Your task to perform on an android device: Open Yahoo.com Image 0: 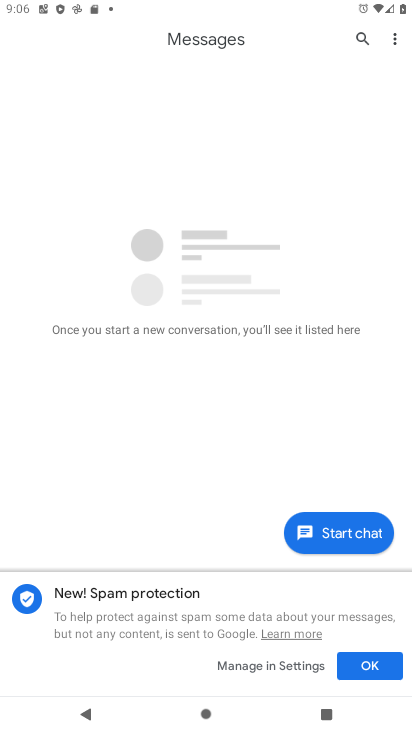
Step 0: press home button
Your task to perform on an android device: Open Yahoo.com Image 1: 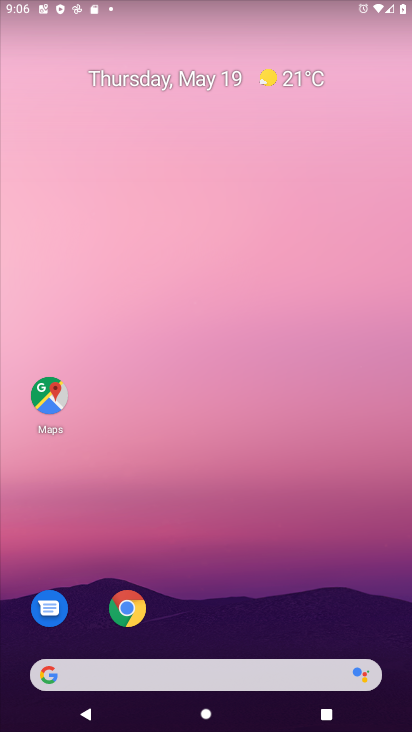
Step 1: drag from (248, 558) to (248, 19)
Your task to perform on an android device: Open Yahoo.com Image 2: 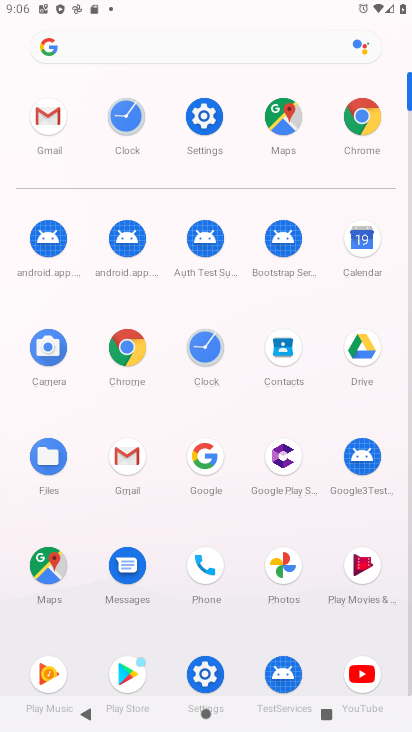
Step 2: click (361, 119)
Your task to perform on an android device: Open Yahoo.com Image 3: 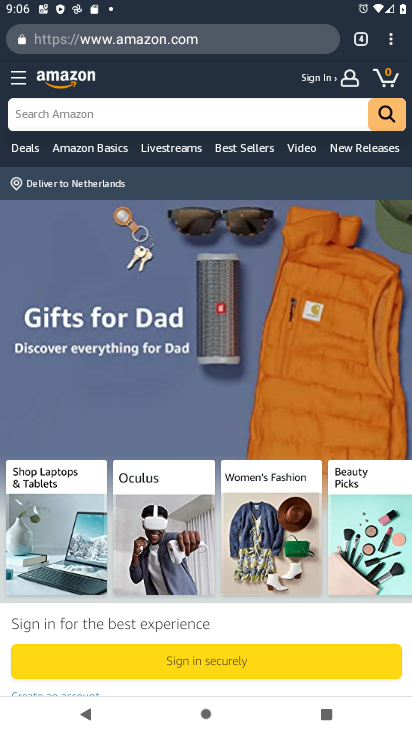
Step 3: click (395, 36)
Your task to perform on an android device: Open Yahoo.com Image 4: 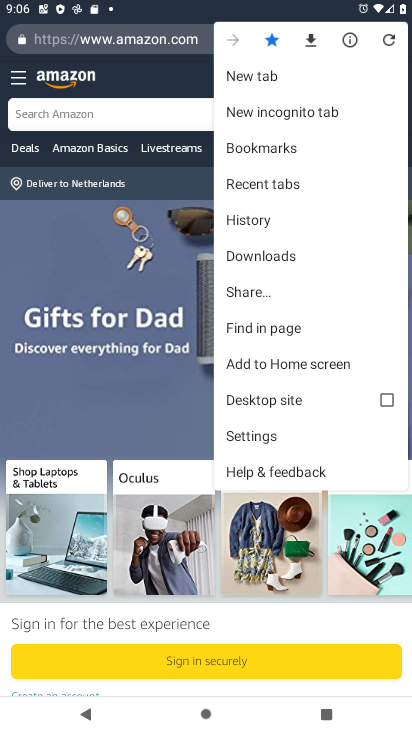
Step 4: click (259, 72)
Your task to perform on an android device: Open Yahoo.com Image 5: 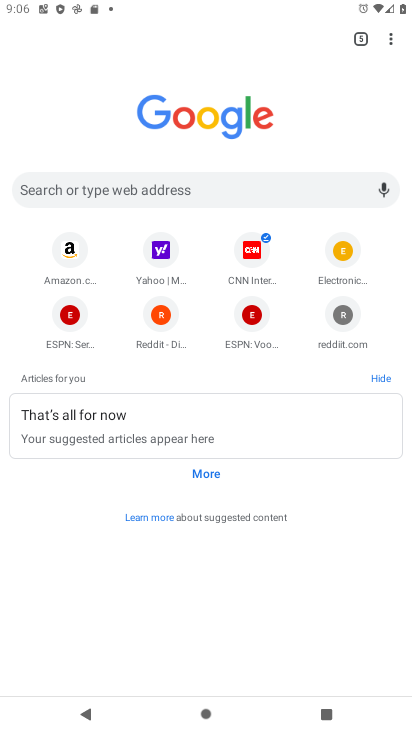
Step 5: click (162, 249)
Your task to perform on an android device: Open Yahoo.com Image 6: 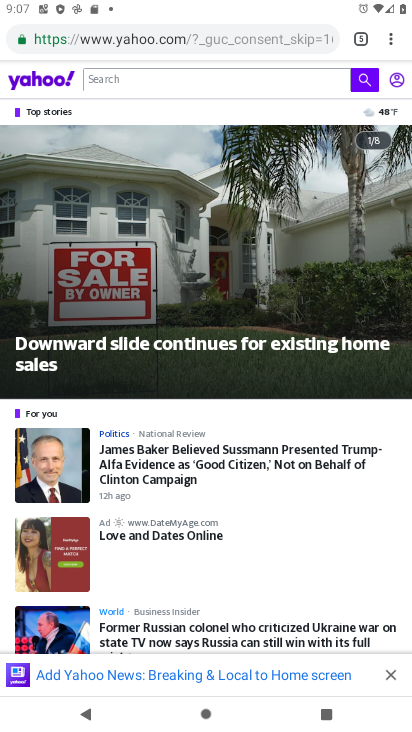
Step 6: task complete